Your task to perform on an android device: Go to Yahoo.com Image 0: 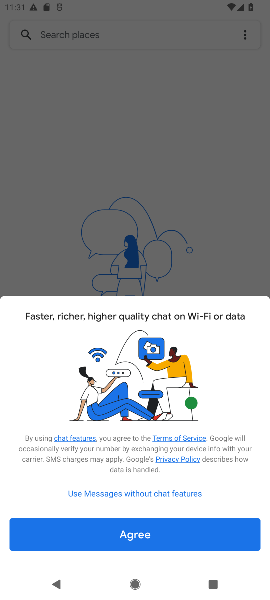
Step 0: press home button
Your task to perform on an android device: Go to Yahoo.com Image 1: 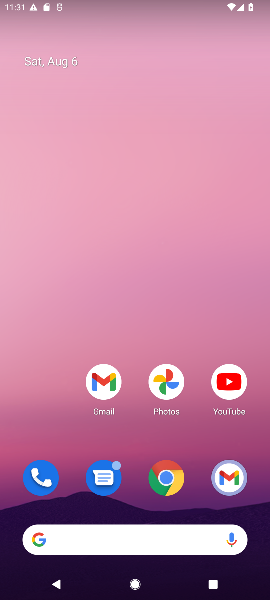
Step 1: click (160, 485)
Your task to perform on an android device: Go to Yahoo.com Image 2: 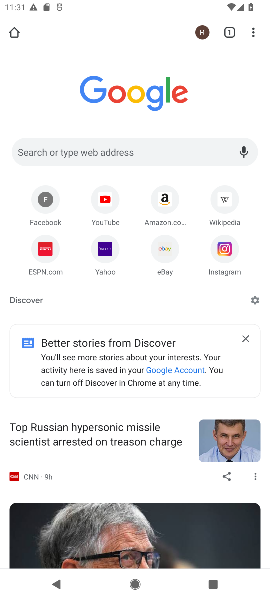
Step 2: click (107, 250)
Your task to perform on an android device: Go to Yahoo.com Image 3: 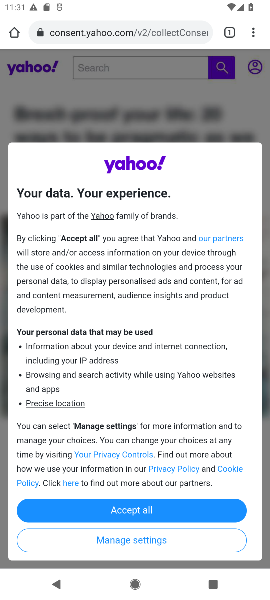
Step 3: task complete